Your task to perform on an android device: Open Amazon Image 0: 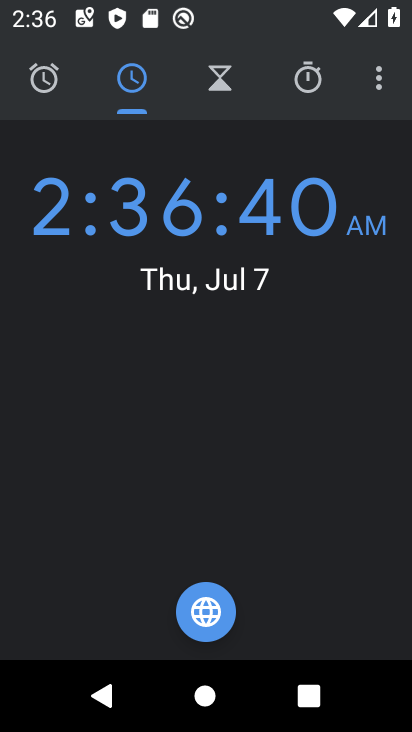
Step 0: press home button
Your task to perform on an android device: Open Amazon Image 1: 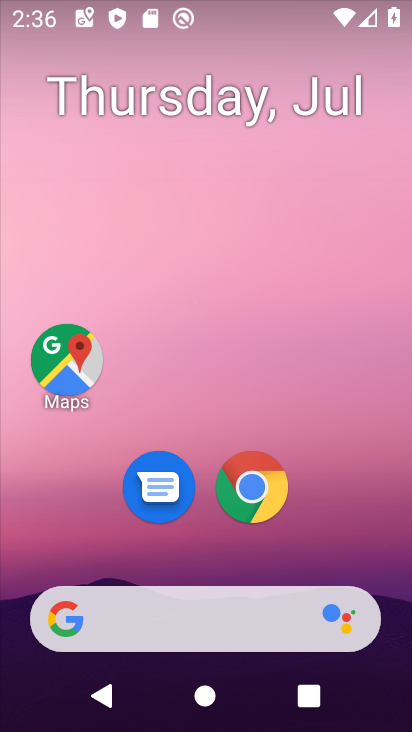
Step 1: drag from (353, 515) to (381, 178)
Your task to perform on an android device: Open Amazon Image 2: 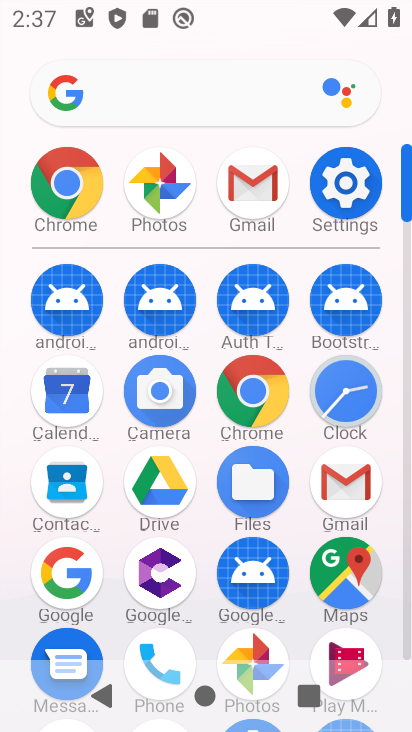
Step 2: click (254, 408)
Your task to perform on an android device: Open Amazon Image 3: 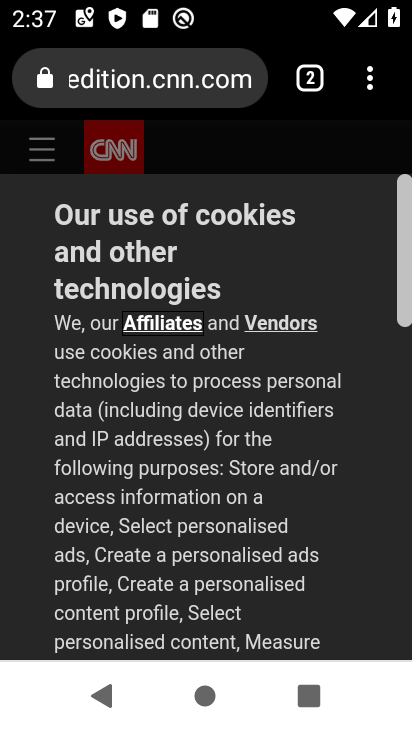
Step 3: click (175, 77)
Your task to perform on an android device: Open Amazon Image 4: 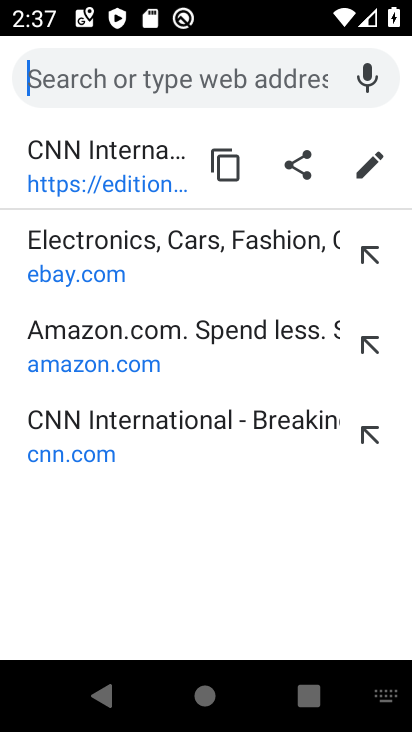
Step 4: type "aaamazon"
Your task to perform on an android device: Open Amazon Image 5: 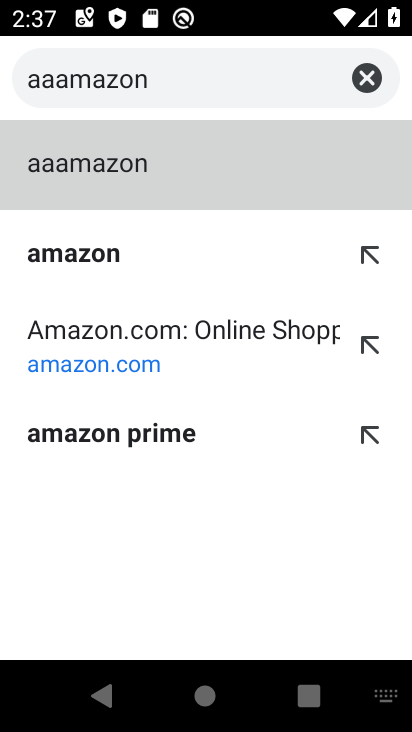
Step 5: click (196, 338)
Your task to perform on an android device: Open Amazon Image 6: 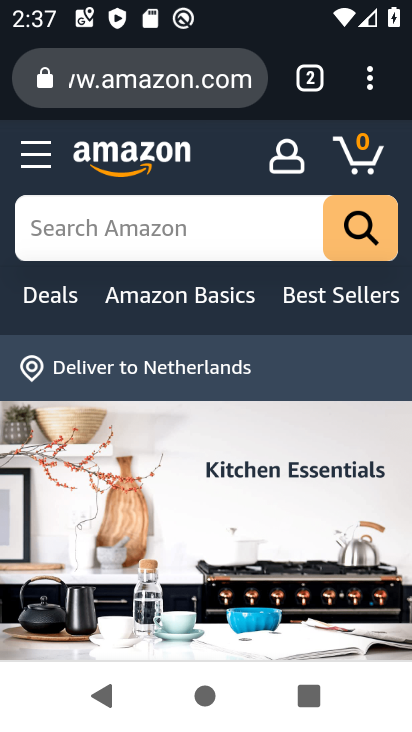
Step 6: task complete